Your task to perform on an android device: Do I have any events this weekend? Image 0: 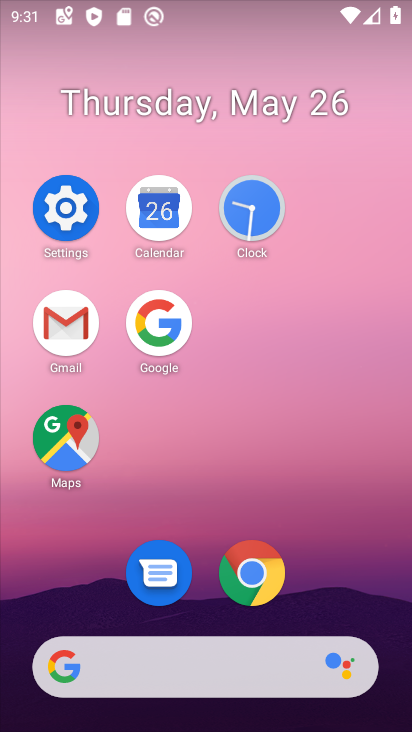
Step 0: click (175, 216)
Your task to perform on an android device: Do I have any events this weekend? Image 1: 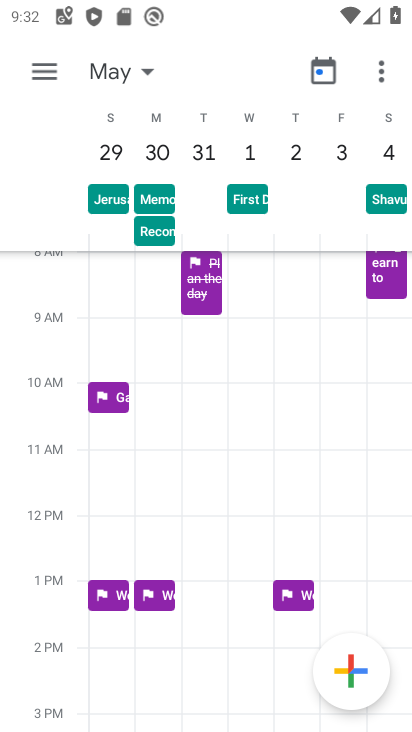
Step 1: drag from (122, 151) to (239, 154)
Your task to perform on an android device: Do I have any events this weekend? Image 2: 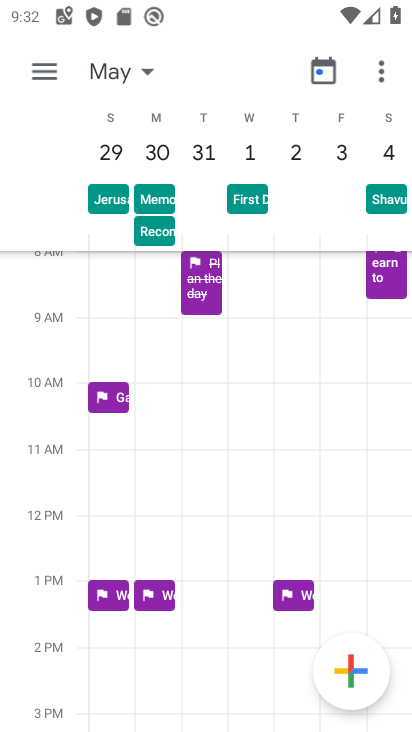
Step 2: drag from (128, 157) to (411, 149)
Your task to perform on an android device: Do I have any events this weekend? Image 3: 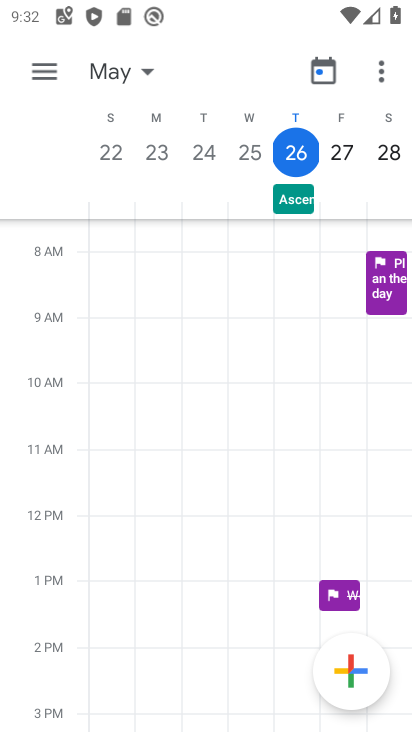
Step 3: click (387, 152)
Your task to perform on an android device: Do I have any events this weekend? Image 4: 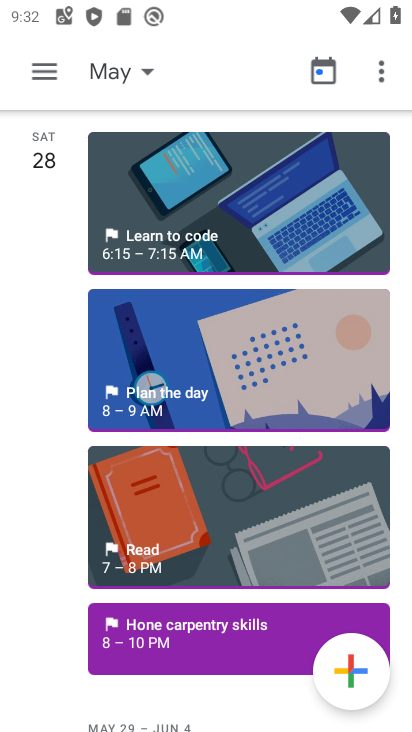
Step 4: task complete